Your task to perform on an android device: turn on bluetooth scan Image 0: 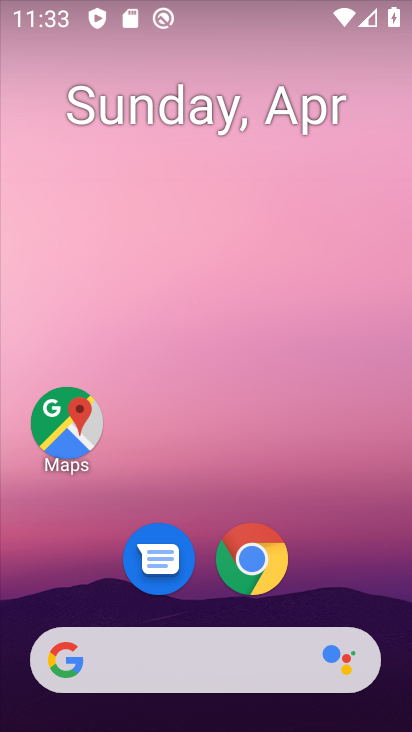
Step 0: drag from (349, 552) to (284, 86)
Your task to perform on an android device: turn on bluetooth scan Image 1: 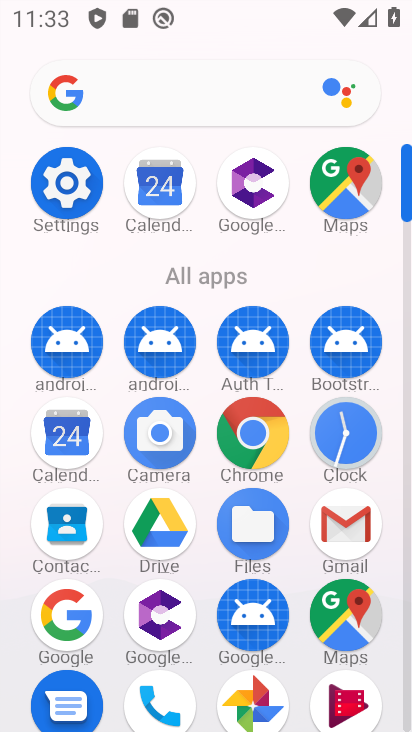
Step 1: click (87, 204)
Your task to perform on an android device: turn on bluetooth scan Image 2: 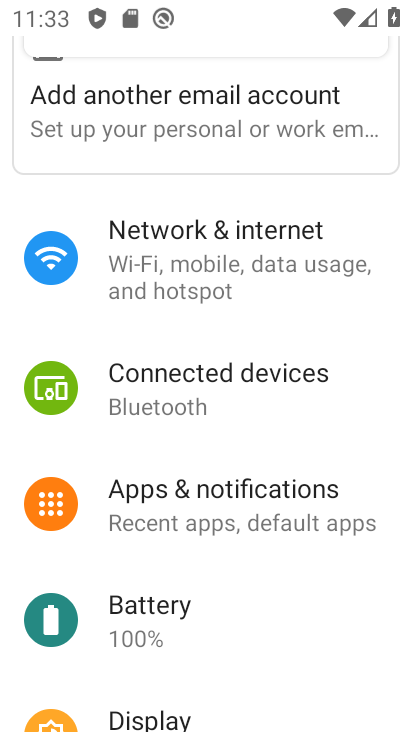
Step 2: drag from (160, 612) to (153, 311)
Your task to perform on an android device: turn on bluetooth scan Image 3: 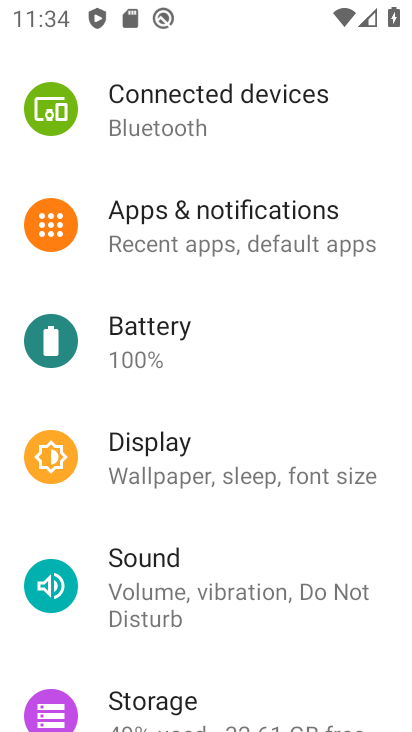
Step 3: drag from (186, 631) to (200, 292)
Your task to perform on an android device: turn on bluetooth scan Image 4: 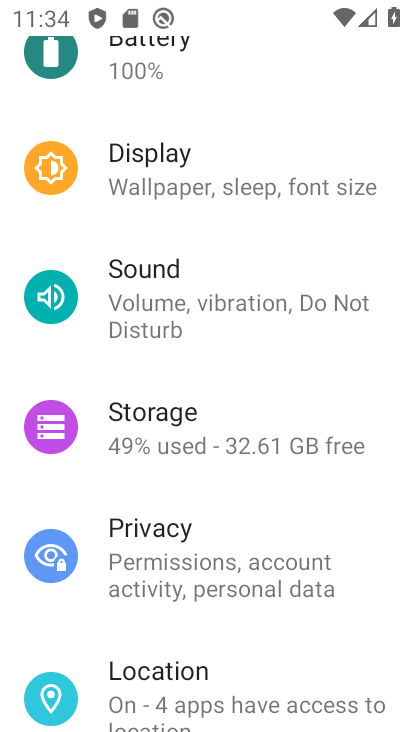
Step 4: drag from (173, 513) to (187, 235)
Your task to perform on an android device: turn on bluetooth scan Image 5: 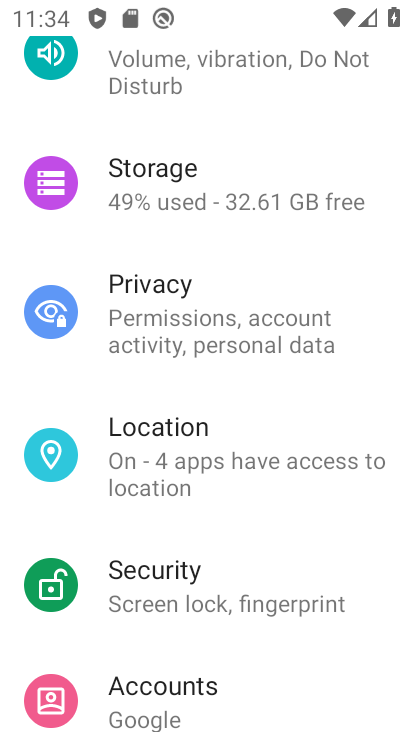
Step 5: click (225, 456)
Your task to perform on an android device: turn on bluetooth scan Image 6: 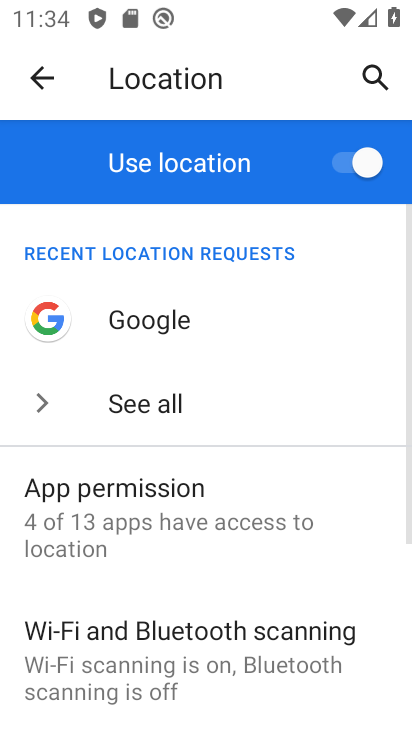
Step 6: drag from (197, 576) to (197, 452)
Your task to perform on an android device: turn on bluetooth scan Image 7: 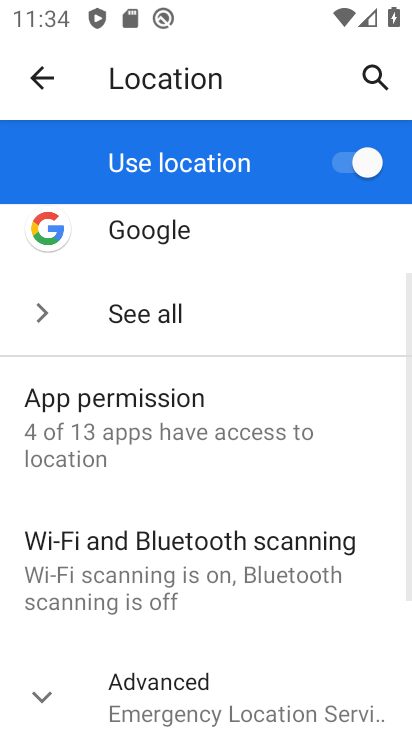
Step 7: click (203, 589)
Your task to perform on an android device: turn on bluetooth scan Image 8: 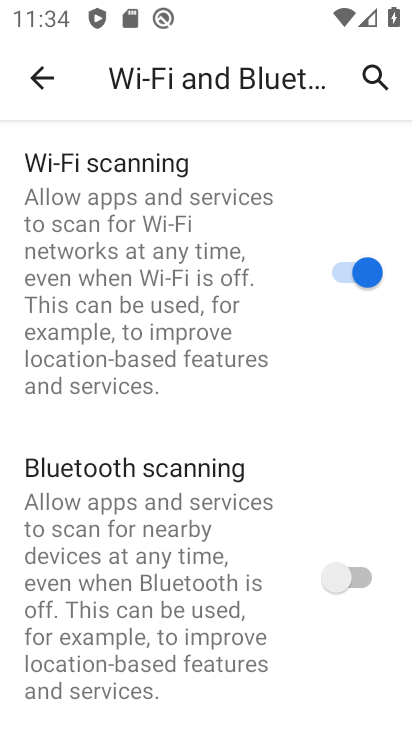
Step 8: click (203, 589)
Your task to perform on an android device: turn on bluetooth scan Image 9: 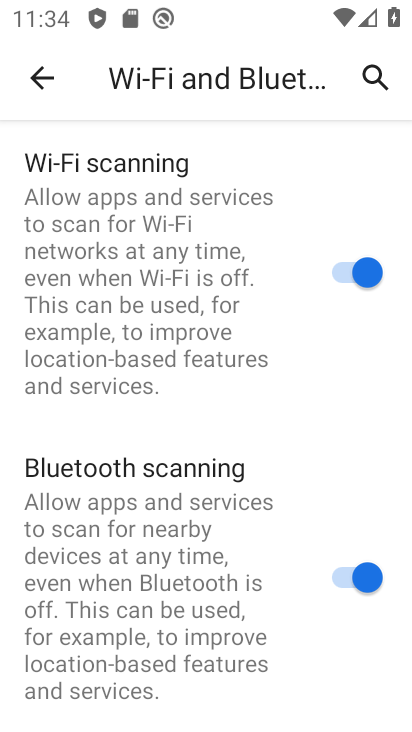
Step 9: task complete